Your task to perform on an android device: Open the web browser Image 0: 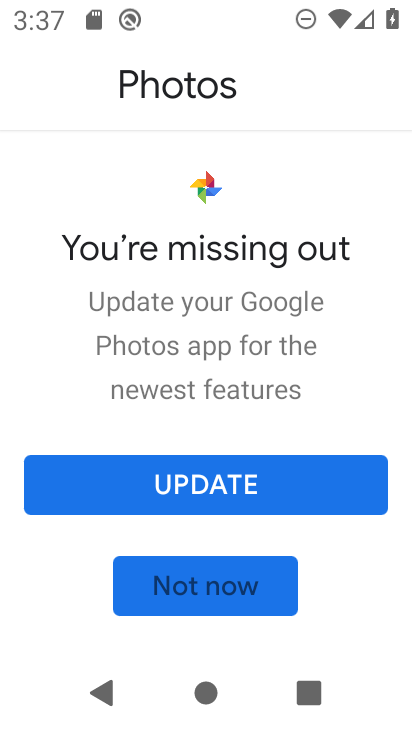
Step 0: click (202, 577)
Your task to perform on an android device: Open the web browser Image 1: 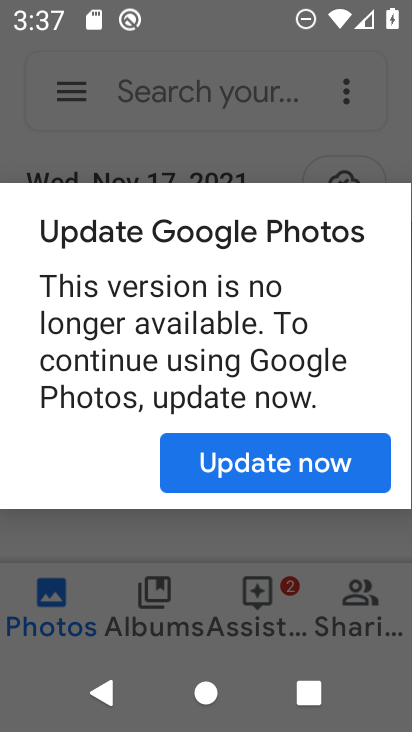
Step 1: press home button
Your task to perform on an android device: Open the web browser Image 2: 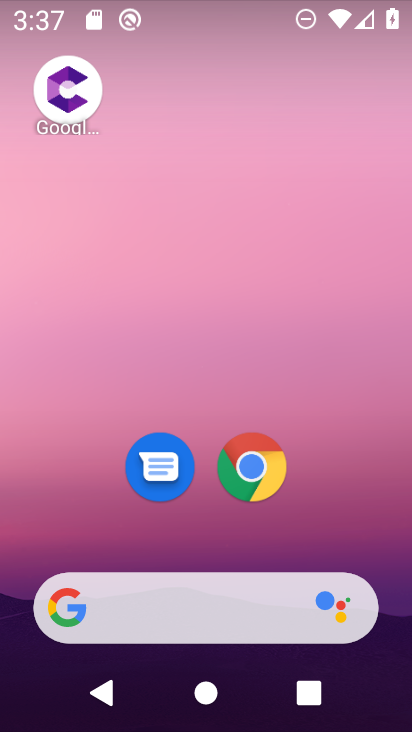
Step 2: drag from (218, 576) to (138, 32)
Your task to perform on an android device: Open the web browser Image 3: 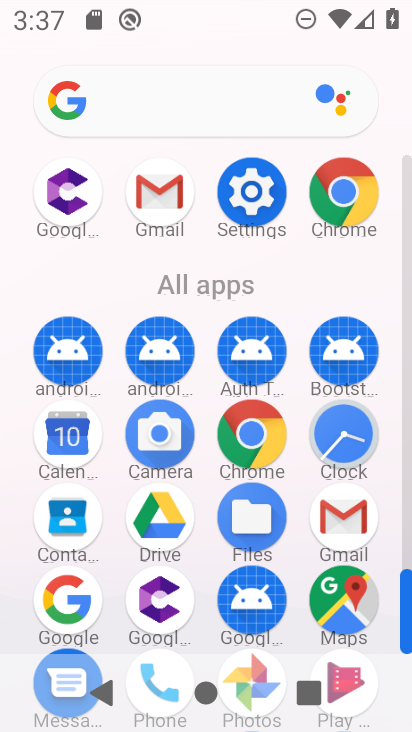
Step 3: click (73, 586)
Your task to perform on an android device: Open the web browser Image 4: 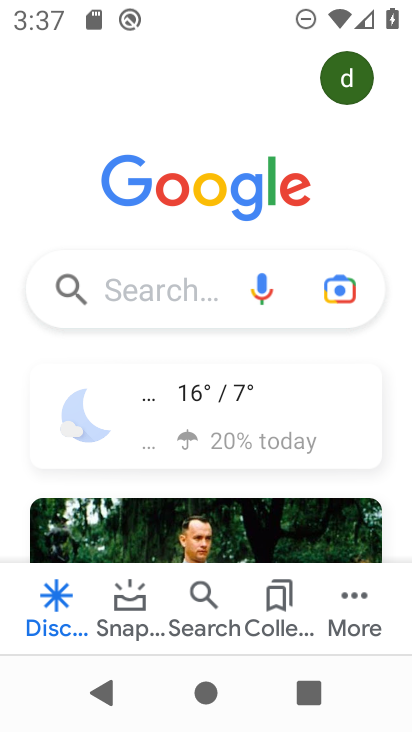
Step 4: click (85, 289)
Your task to perform on an android device: Open the web browser Image 5: 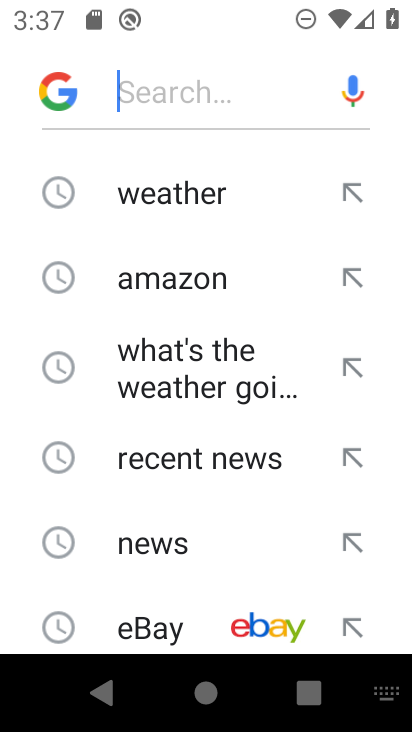
Step 5: task complete